Your task to perform on an android device: Open network settings Image 0: 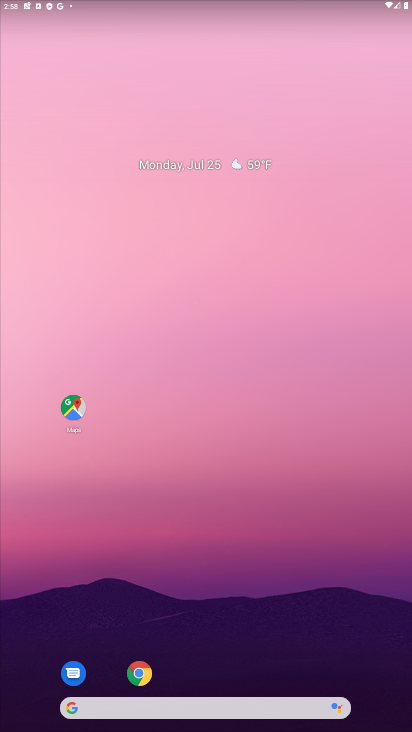
Step 0: drag from (237, 2) to (169, 498)
Your task to perform on an android device: Open network settings Image 1: 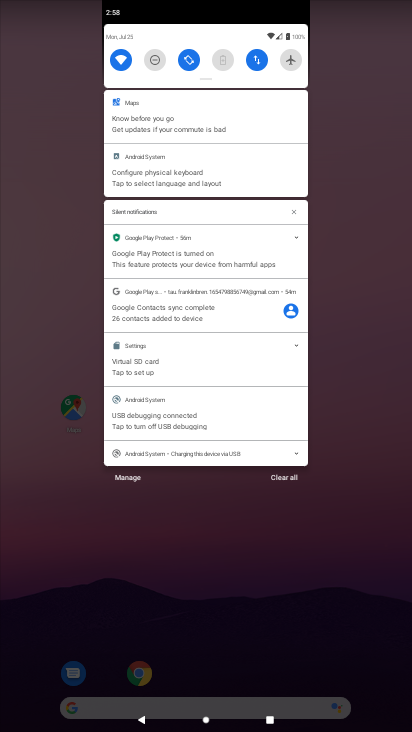
Step 1: click (252, 65)
Your task to perform on an android device: Open network settings Image 2: 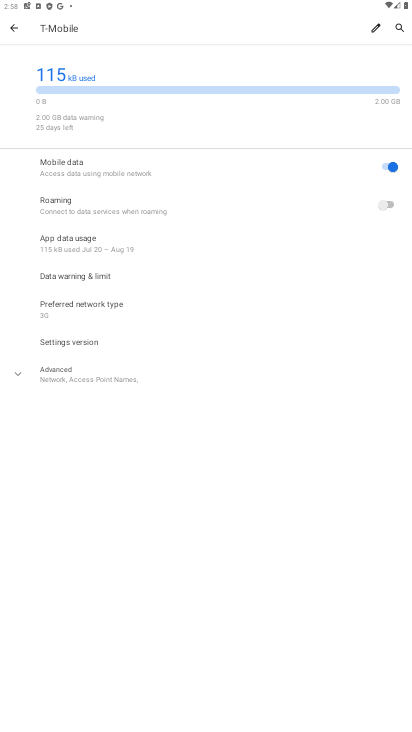
Step 2: task complete